Your task to perform on an android device: Search for Mexican restaurants on Maps Image 0: 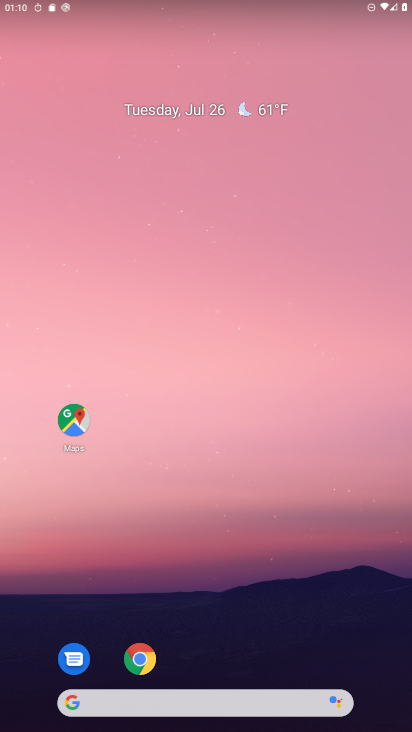
Step 0: click (86, 420)
Your task to perform on an android device: Search for Mexican restaurants on Maps Image 1: 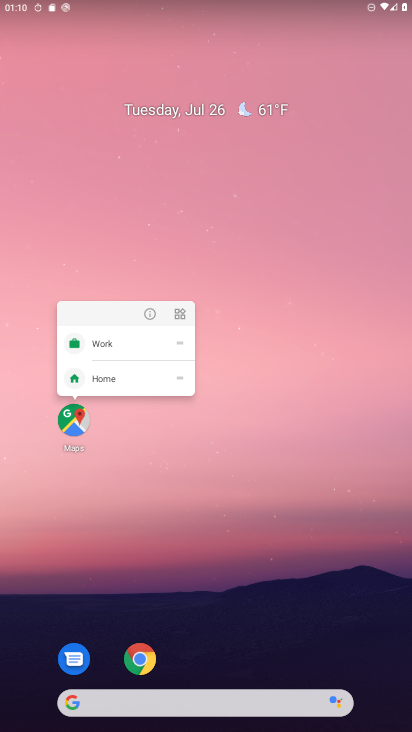
Step 1: click (77, 415)
Your task to perform on an android device: Search for Mexican restaurants on Maps Image 2: 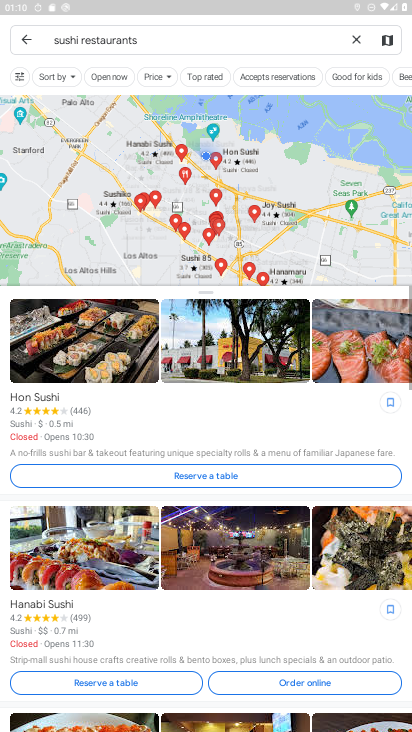
Step 2: click (22, 36)
Your task to perform on an android device: Search for Mexican restaurants on Maps Image 3: 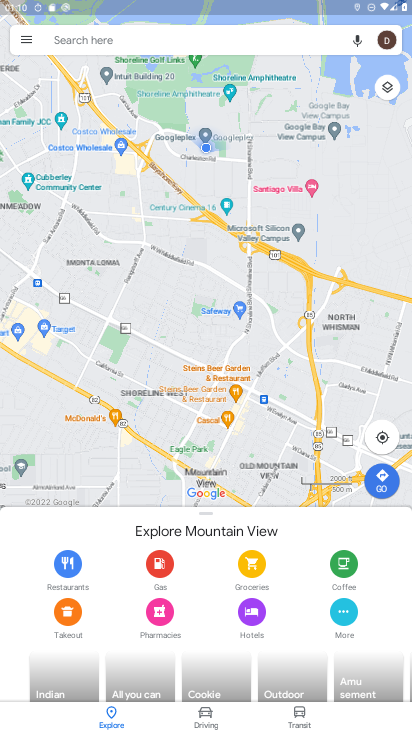
Step 3: click (73, 39)
Your task to perform on an android device: Search for Mexican restaurants on Maps Image 4: 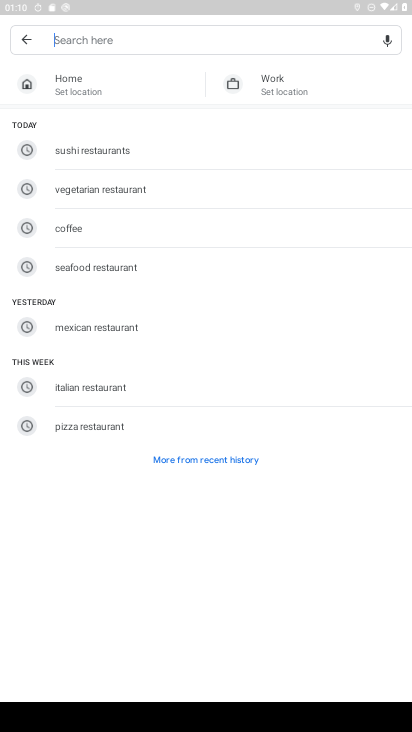
Step 4: click (137, 329)
Your task to perform on an android device: Search for Mexican restaurants on Maps Image 5: 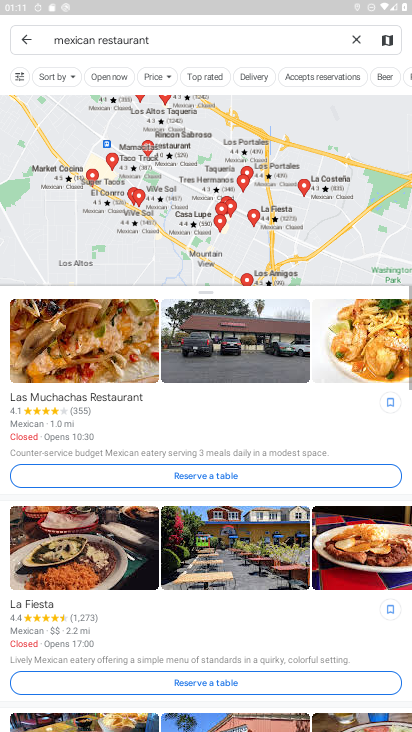
Step 5: task complete